Your task to perform on an android device: Check the news Image 0: 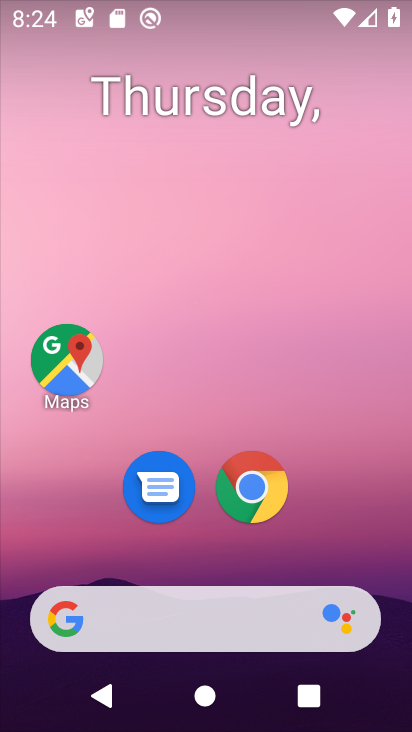
Step 0: click (159, 607)
Your task to perform on an android device: Check the news Image 1: 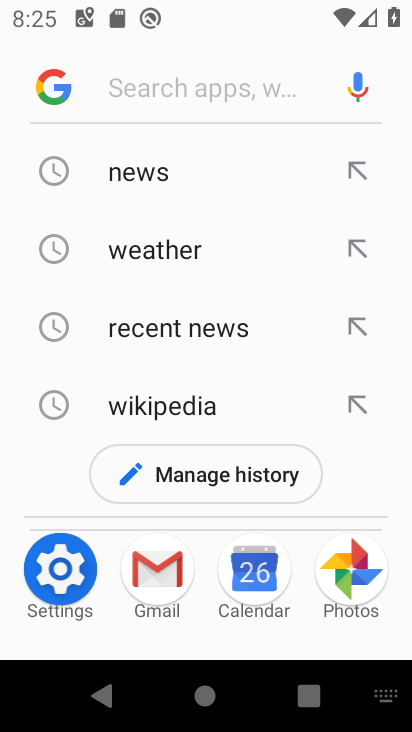
Step 1: click (168, 164)
Your task to perform on an android device: Check the news Image 2: 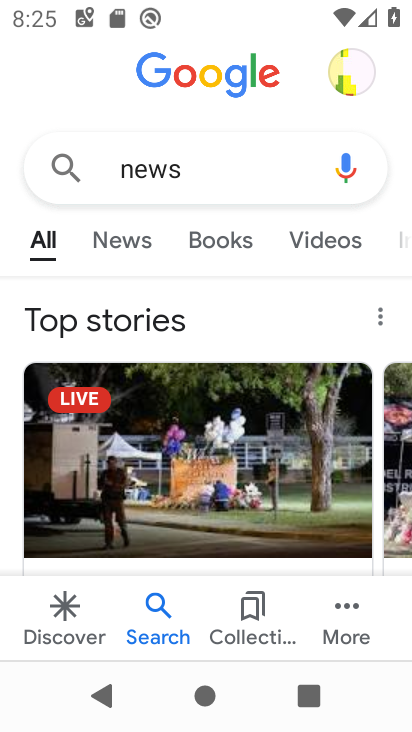
Step 2: task complete